Your task to perform on an android device: change the upload size in google photos Image 0: 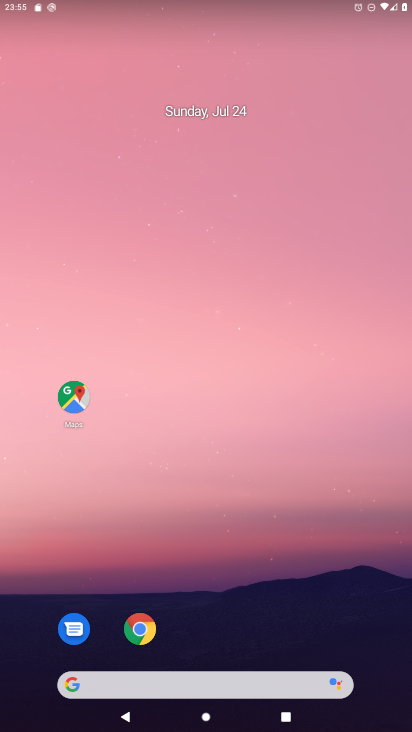
Step 0: drag from (250, 102) to (198, 196)
Your task to perform on an android device: change the upload size in google photos Image 1: 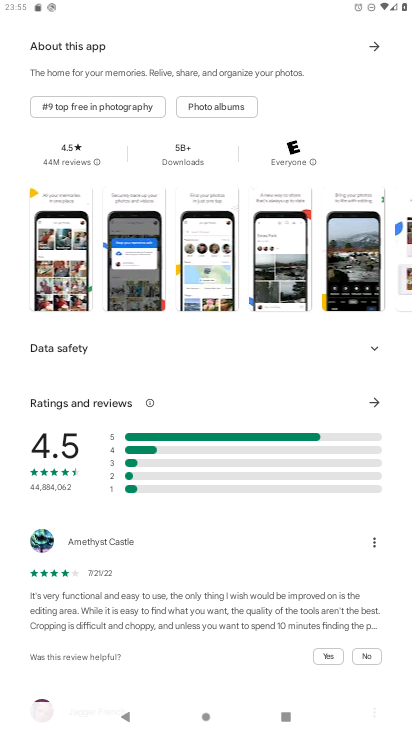
Step 1: press home button
Your task to perform on an android device: change the upload size in google photos Image 2: 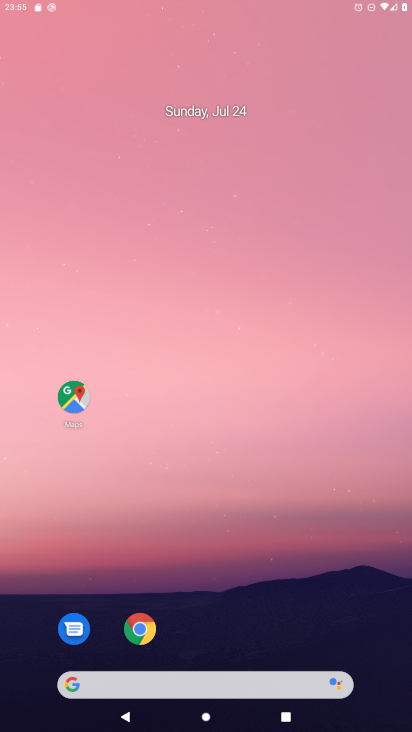
Step 2: drag from (223, 254) to (227, 201)
Your task to perform on an android device: change the upload size in google photos Image 3: 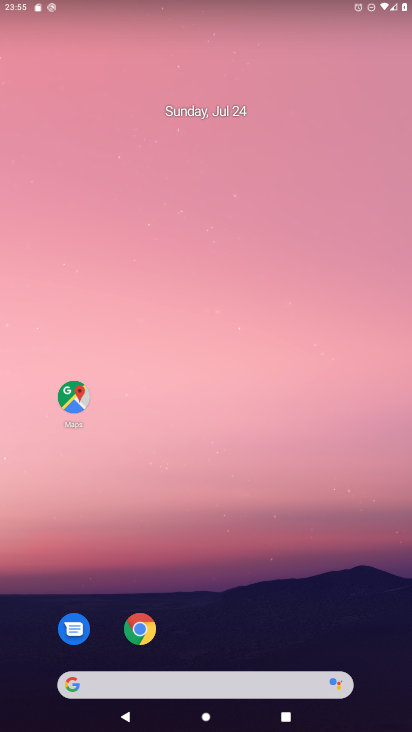
Step 3: drag from (212, 612) to (219, 140)
Your task to perform on an android device: change the upload size in google photos Image 4: 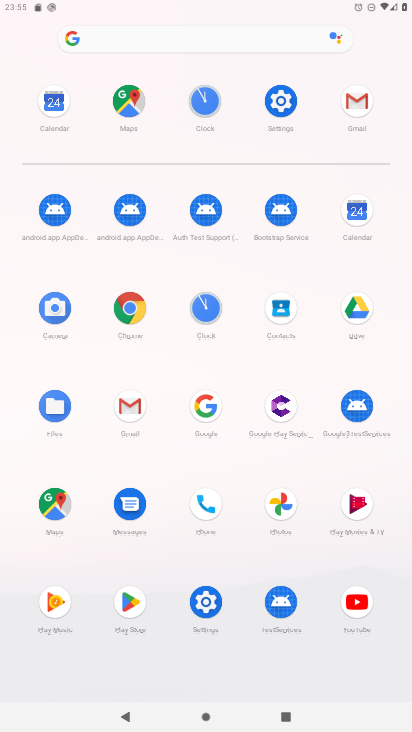
Step 4: drag from (167, 627) to (161, 384)
Your task to perform on an android device: change the upload size in google photos Image 5: 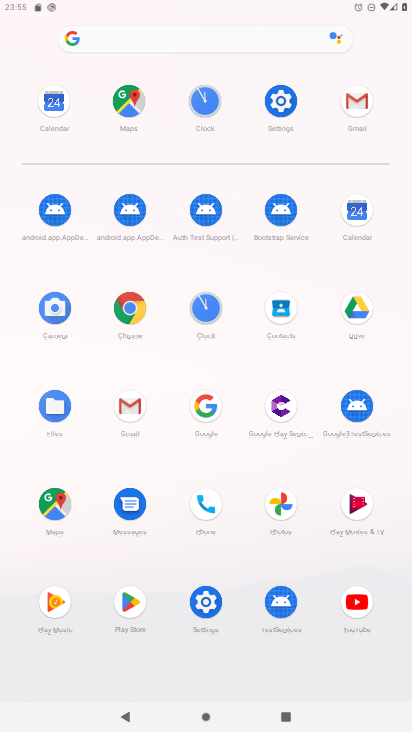
Step 5: drag from (232, 607) to (241, 310)
Your task to perform on an android device: change the upload size in google photos Image 6: 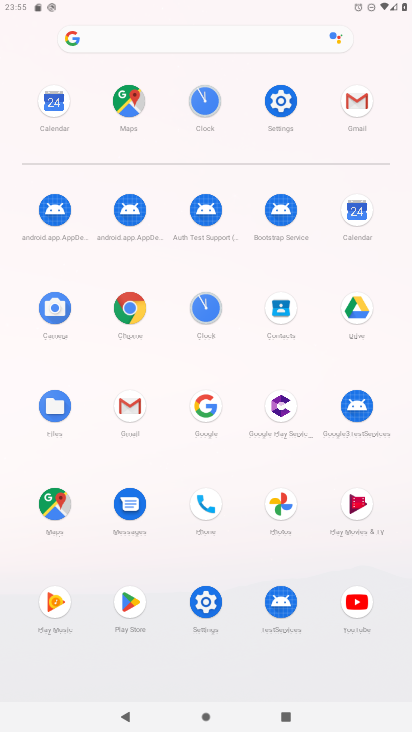
Step 6: drag from (227, 632) to (243, 350)
Your task to perform on an android device: change the upload size in google photos Image 7: 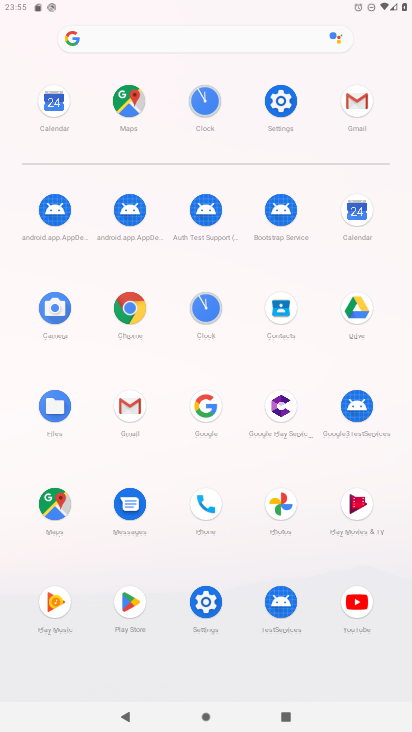
Step 7: drag from (232, 636) to (253, 411)
Your task to perform on an android device: change the upload size in google photos Image 8: 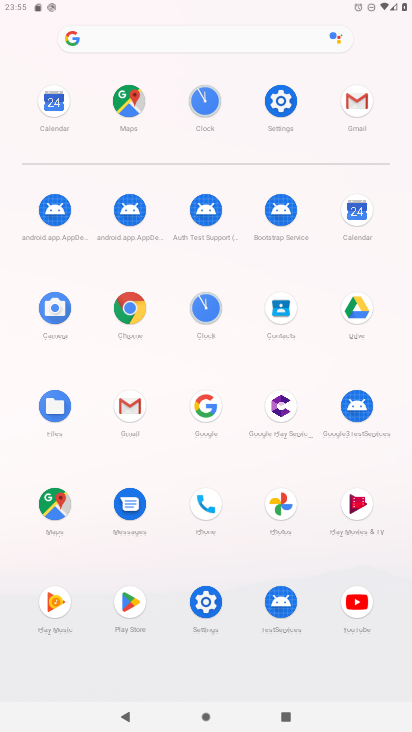
Step 8: click (269, 496)
Your task to perform on an android device: change the upload size in google photos Image 9: 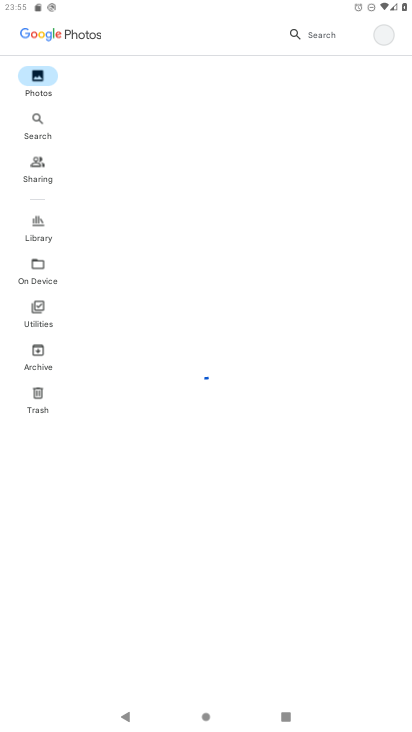
Step 9: drag from (221, 521) to (239, 220)
Your task to perform on an android device: change the upload size in google photos Image 10: 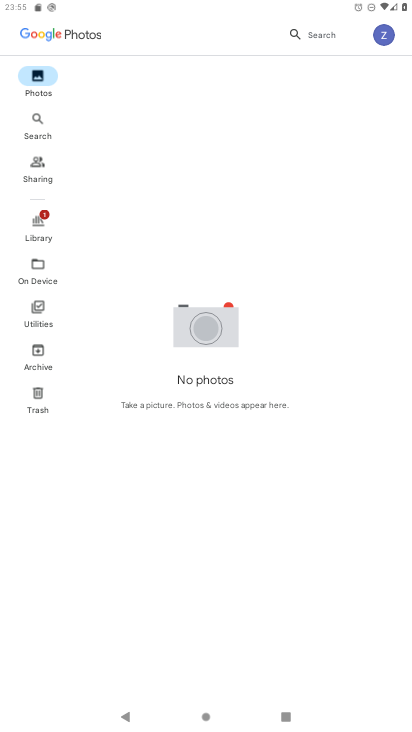
Step 10: drag from (169, 161) to (209, 685)
Your task to perform on an android device: change the upload size in google photos Image 11: 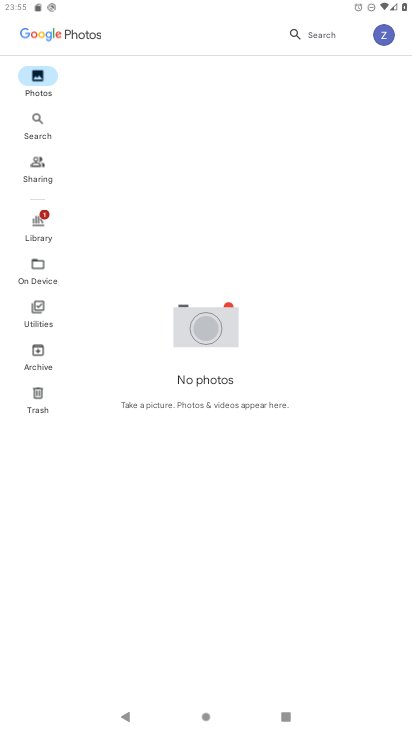
Step 11: drag from (377, 30) to (395, 80)
Your task to perform on an android device: change the upload size in google photos Image 12: 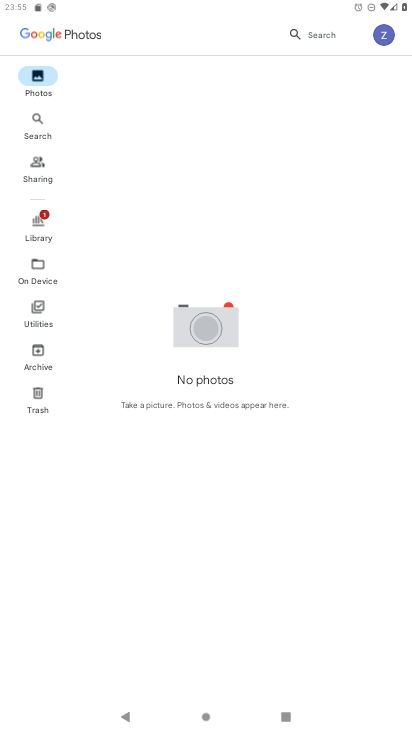
Step 12: drag from (387, 41) to (337, 221)
Your task to perform on an android device: change the upload size in google photos Image 13: 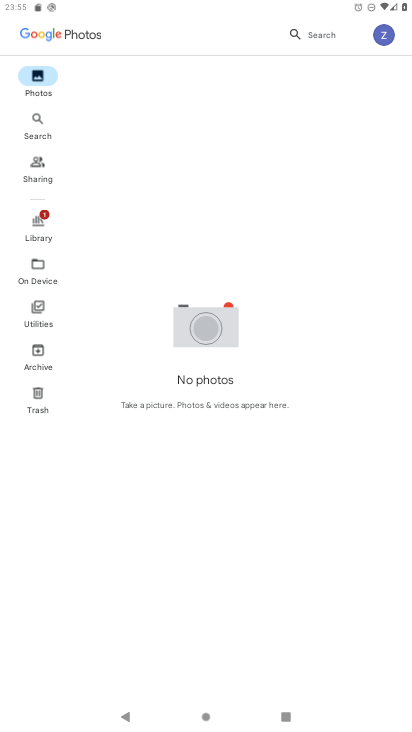
Step 13: click (383, 36)
Your task to perform on an android device: change the upload size in google photos Image 14: 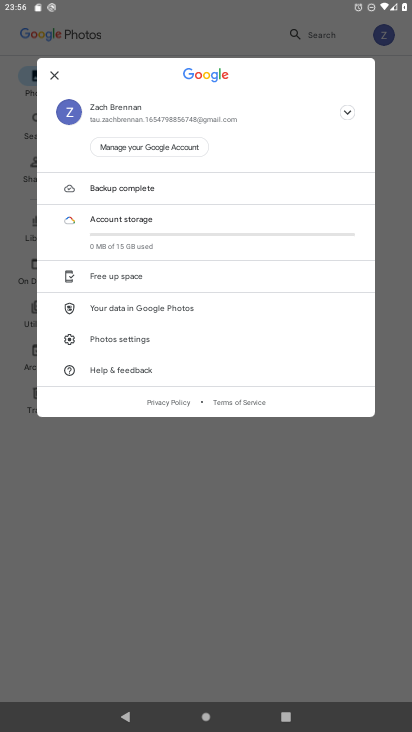
Step 14: click (116, 339)
Your task to perform on an android device: change the upload size in google photos Image 15: 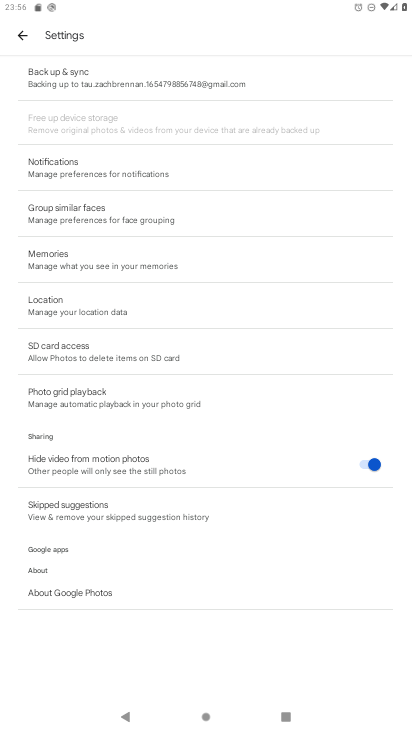
Step 15: drag from (156, 541) to (175, 246)
Your task to perform on an android device: change the upload size in google photos Image 16: 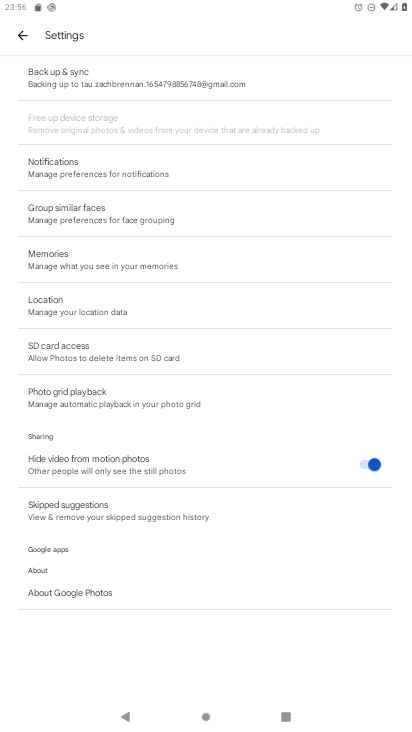
Step 16: click (110, 79)
Your task to perform on an android device: change the upload size in google photos Image 17: 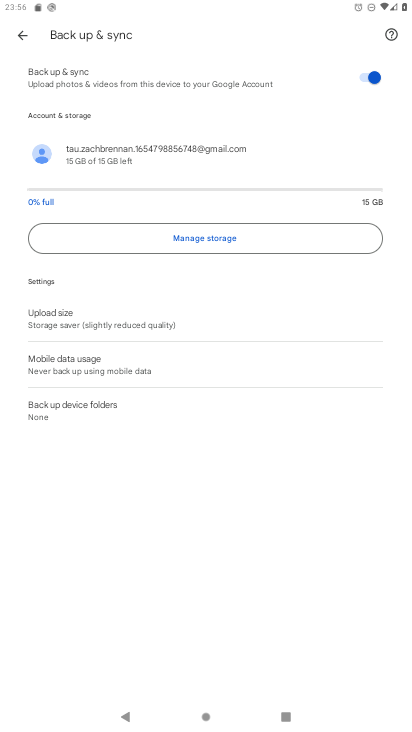
Step 17: drag from (198, 461) to (189, 233)
Your task to perform on an android device: change the upload size in google photos Image 18: 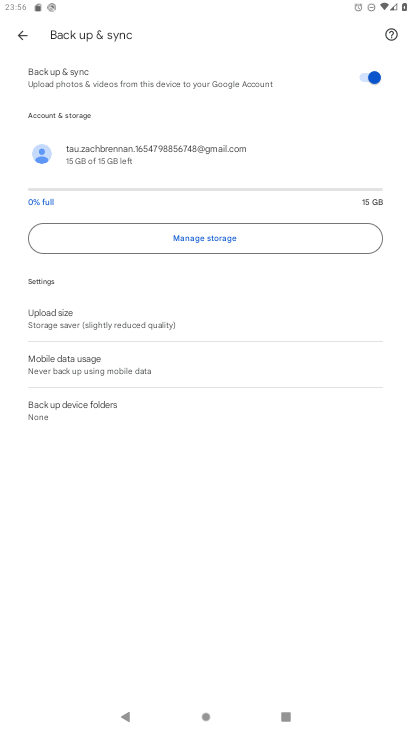
Step 18: click (58, 318)
Your task to perform on an android device: change the upload size in google photos Image 19: 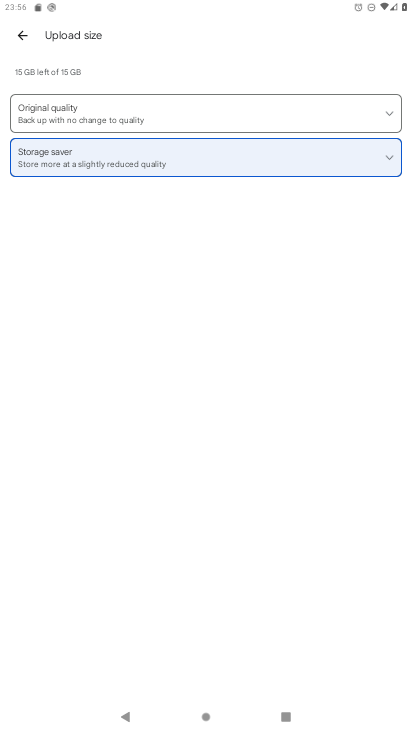
Step 19: drag from (171, 492) to (211, 241)
Your task to perform on an android device: change the upload size in google photos Image 20: 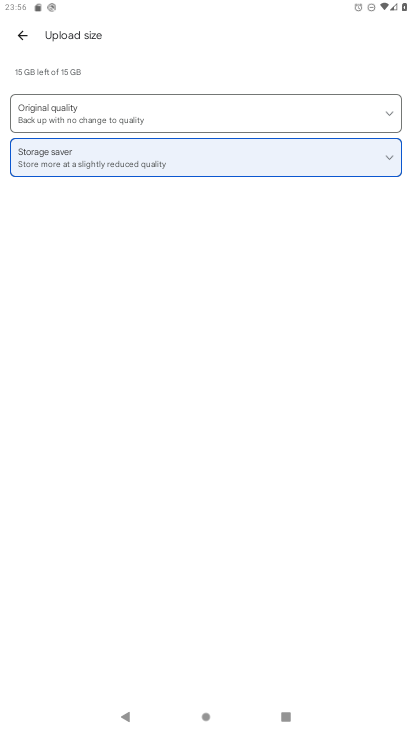
Step 20: click (174, 103)
Your task to perform on an android device: change the upload size in google photos Image 21: 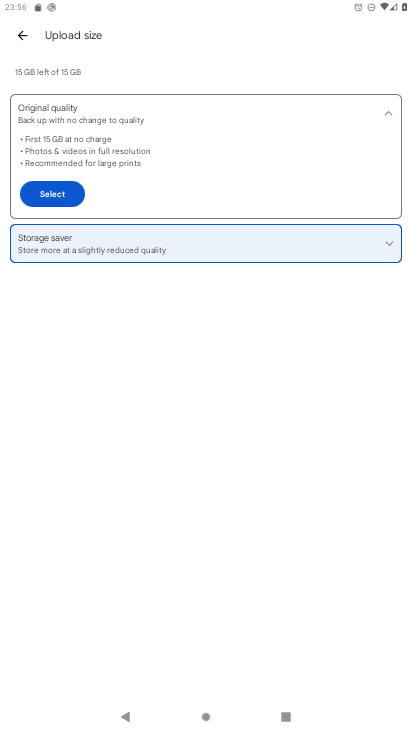
Step 21: click (42, 203)
Your task to perform on an android device: change the upload size in google photos Image 22: 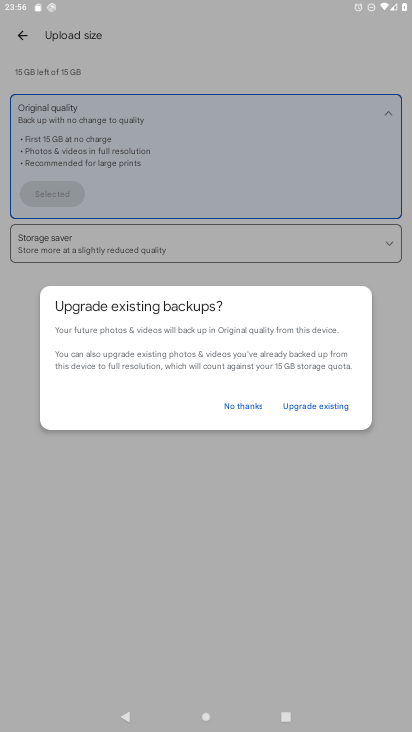
Step 22: click (304, 402)
Your task to perform on an android device: change the upload size in google photos Image 23: 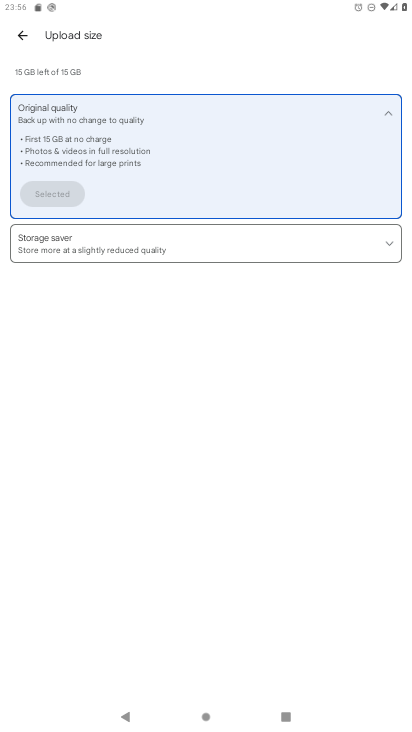
Step 23: task complete